Your task to perform on an android device: open chrome privacy settings Image 0: 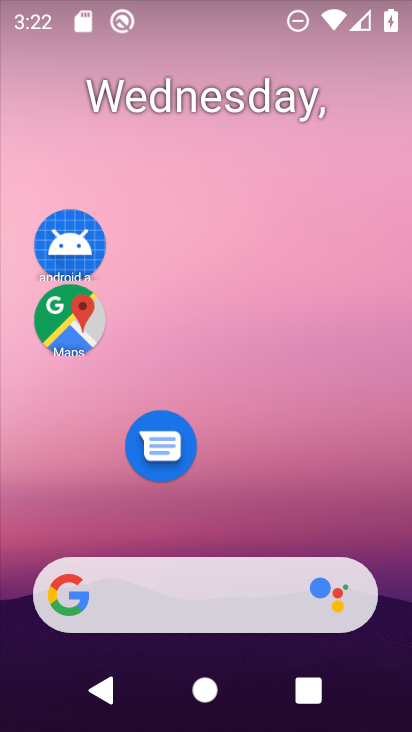
Step 0: drag from (278, 522) to (250, 119)
Your task to perform on an android device: open chrome privacy settings Image 1: 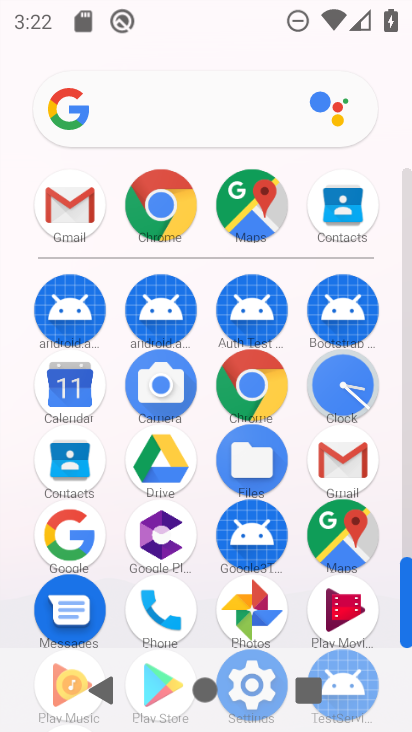
Step 1: click (156, 202)
Your task to perform on an android device: open chrome privacy settings Image 2: 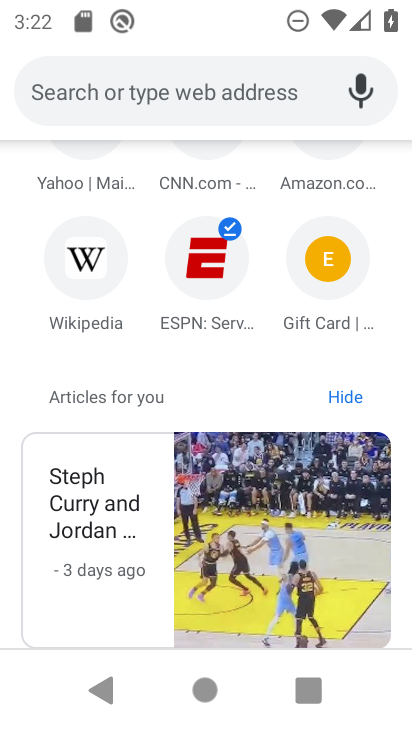
Step 2: drag from (341, 157) to (397, 542)
Your task to perform on an android device: open chrome privacy settings Image 3: 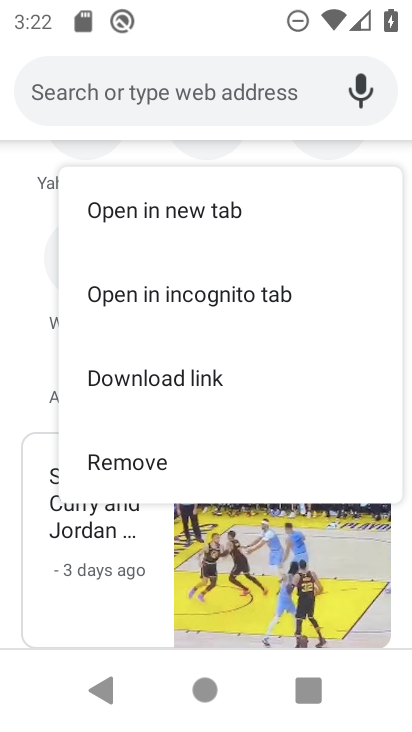
Step 3: click (193, 552)
Your task to perform on an android device: open chrome privacy settings Image 4: 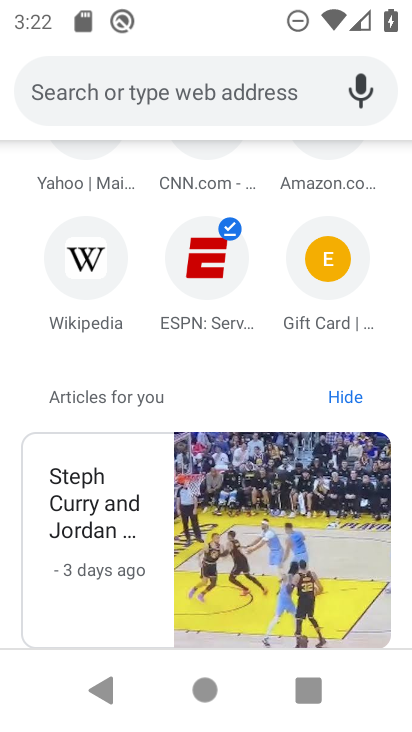
Step 4: drag from (271, 369) to (400, 329)
Your task to perform on an android device: open chrome privacy settings Image 5: 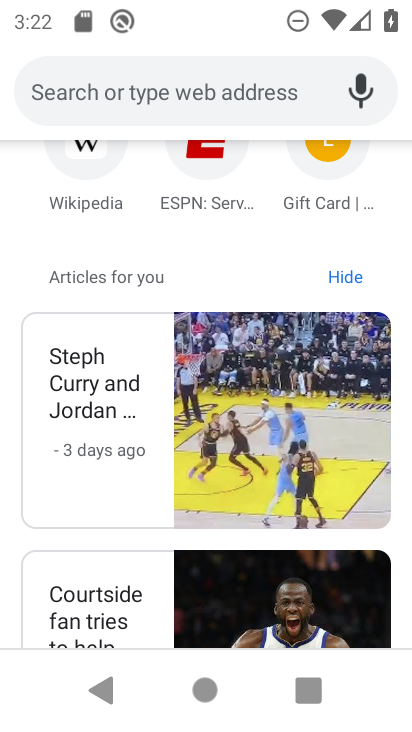
Step 5: drag from (308, 153) to (400, 405)
Your task to perform on an android device: open chrome privacy settings Image 6: 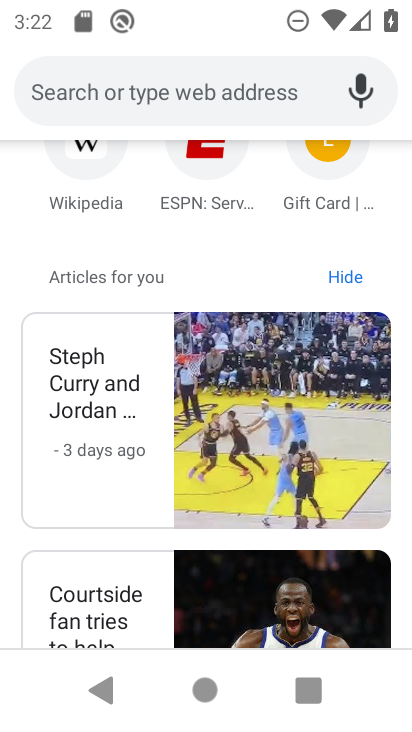
Step 6: drag from (182, 323) to (98, 559)
Your task to perform on an android device: open chrome privacy settings Image 7: 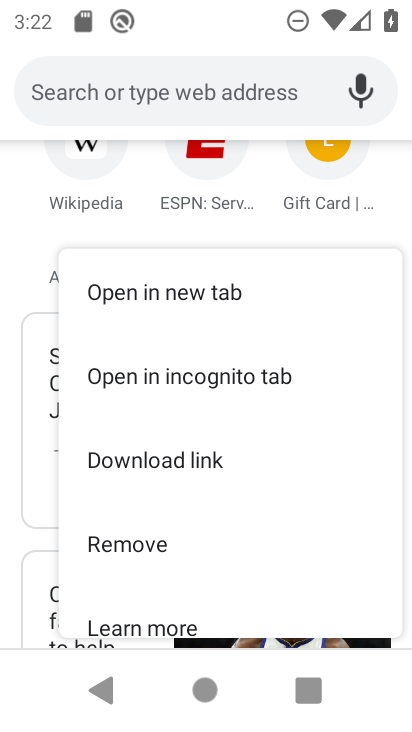
Step 7: drag from (256, 228) to (241, 576)
Your task to perform on an android device: open chrome privacy settings Image 8: 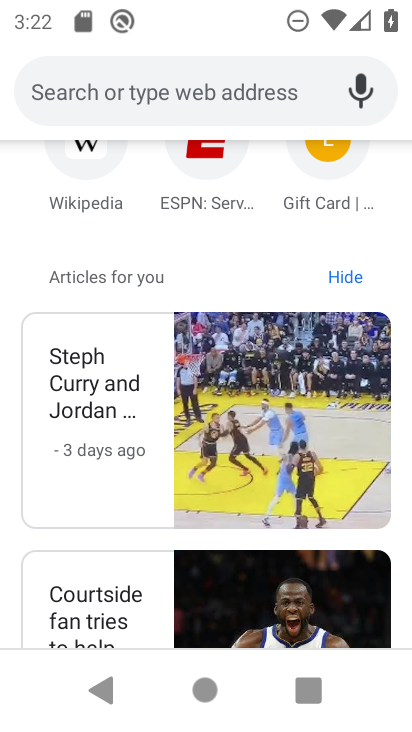
Step 8: drag from (230, 256) to (246, 693)
Your task to perform on an android device: open chrome privacy settings Image 9: 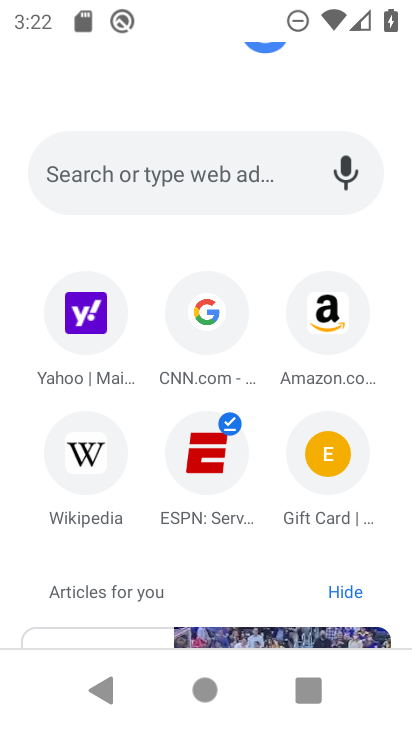
Step 9: drag from (324, 95) to (263, 500)
Your task to perform on an android device: open chrome privacy settings Image 10: 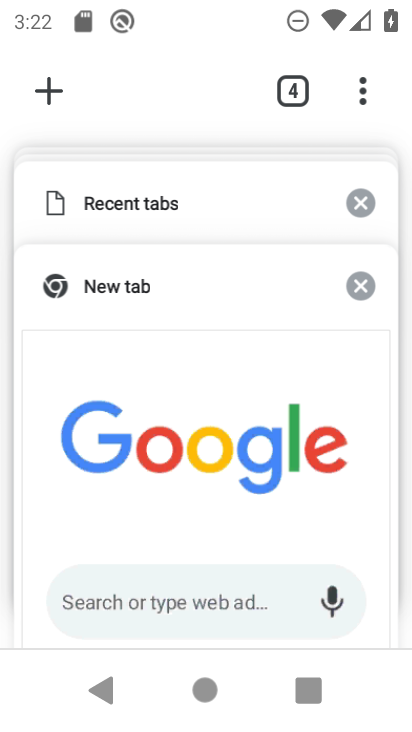
Step 10: click (354, 98)
Your task to perform on an android device: open chrome privacy settings Image 11: 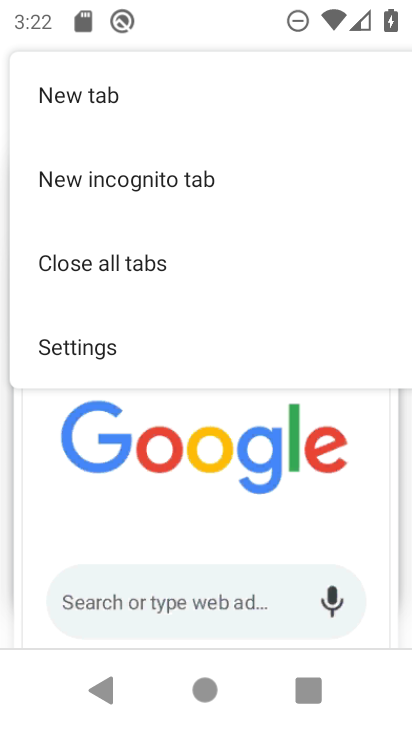
Step 11: click (193, 367)
Your task to perform on an android device: open chrome privacy settings Image 12: 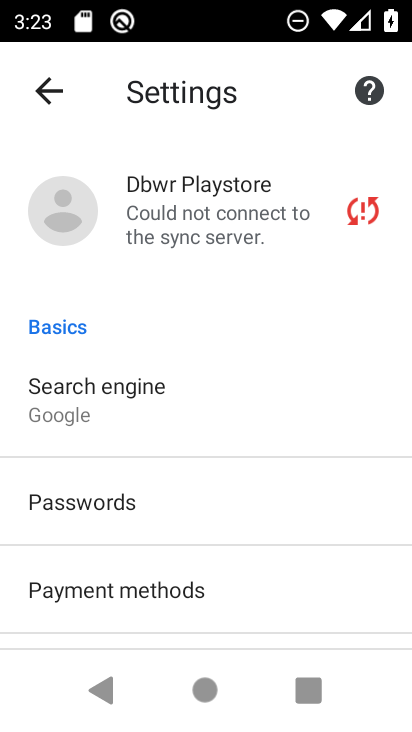
Step 12: drag from (203, 511) to (215, 338)
Your task to perform on an android device: open chrome privacy settings Image 13: 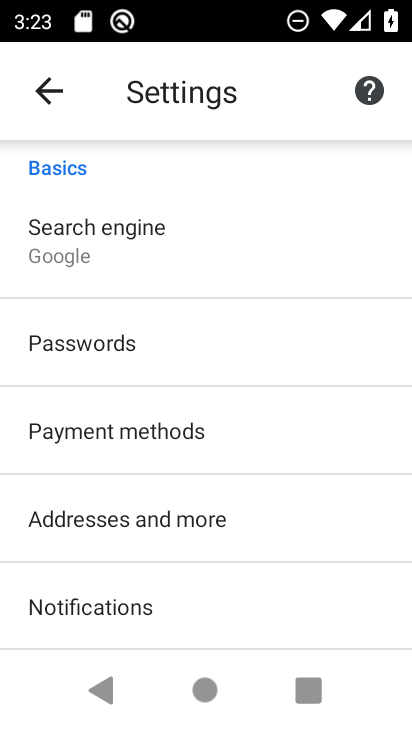
Step 13: drag from (183, 521) to (200, 402)
Your task to perform on an android device: open chrome privacy settings Image 14: 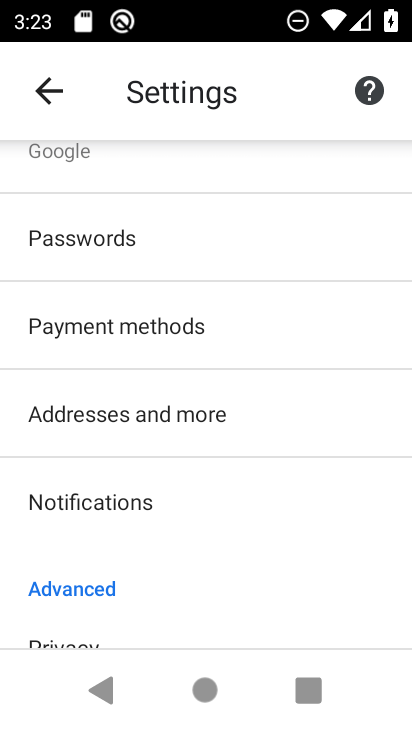
Step 14: drag from (145, 618) to (176, 478)
Your task to perform on an android device: open chrome privacy settings Image 15: 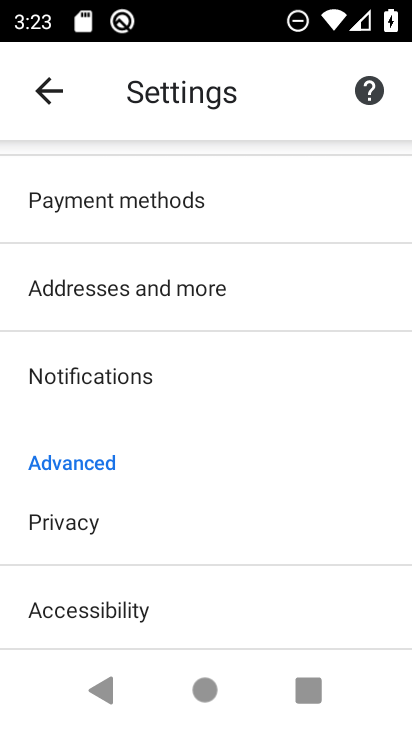
Step 15: click (146, 528)
Your task to perform on an android device: open chrome privacy settings Image 16: 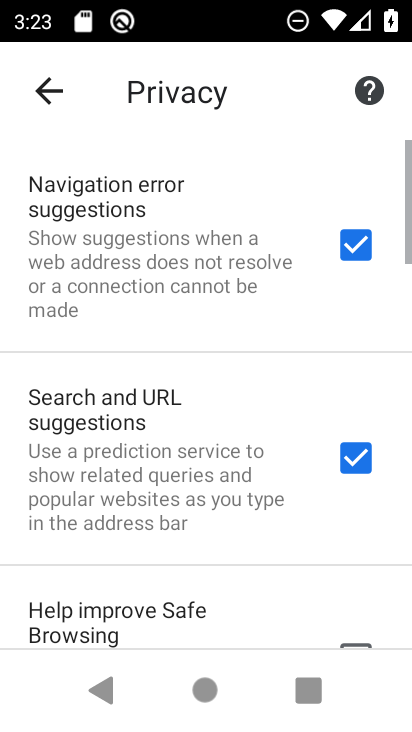
Step 16: task complete